Your task to perform on an android device: Open wifi settings Image 0: 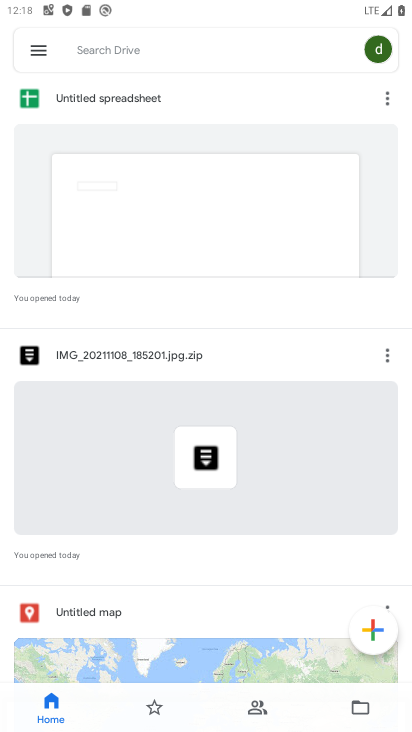
Step 0: press home button
Your task to perform on an android device: Open wifi settings Image 1: 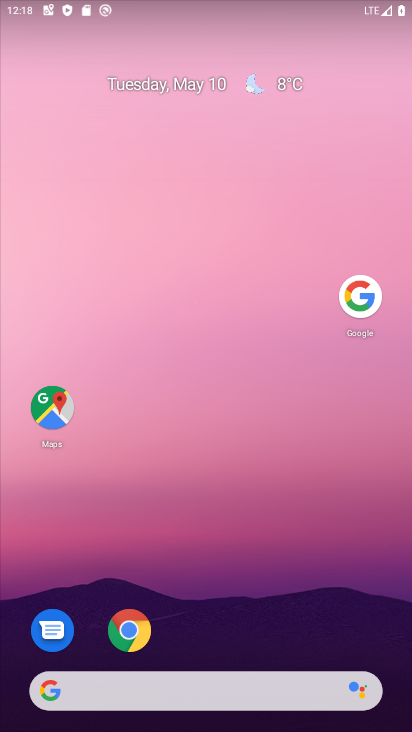
Step 1: drag from (168, 685) to (327, 2)
Your task to perform on an android device: Open wifi settings Image 2: 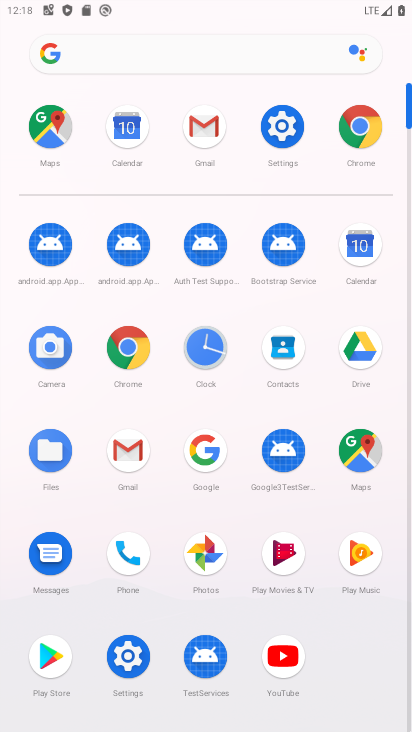
Step 2: click (275, 134)
Your task to perform on an android device: Open wifi settings Image 3: 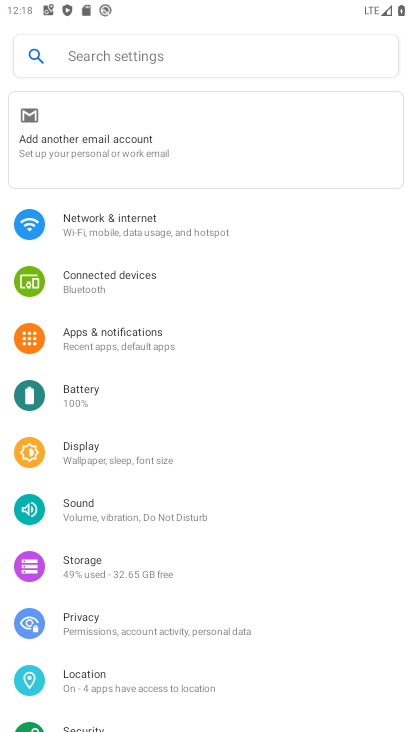
Step 3: click (178, 224)
Your task to perform on an android device: Open wifi settings Image 4: 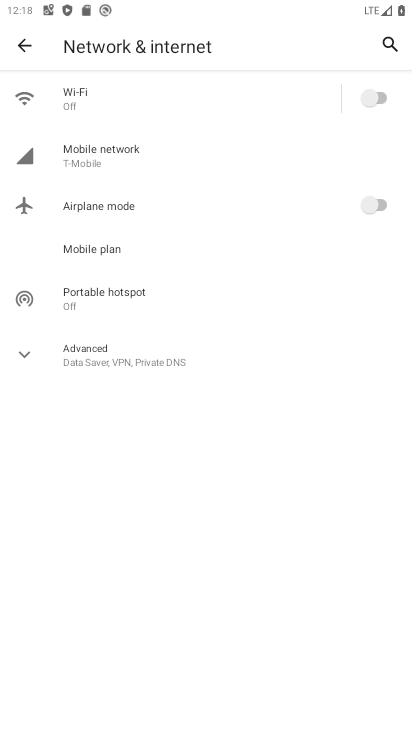
Step 4: click (80, 98)
Your task to perform on an android device: Open wifi settings Image 5: 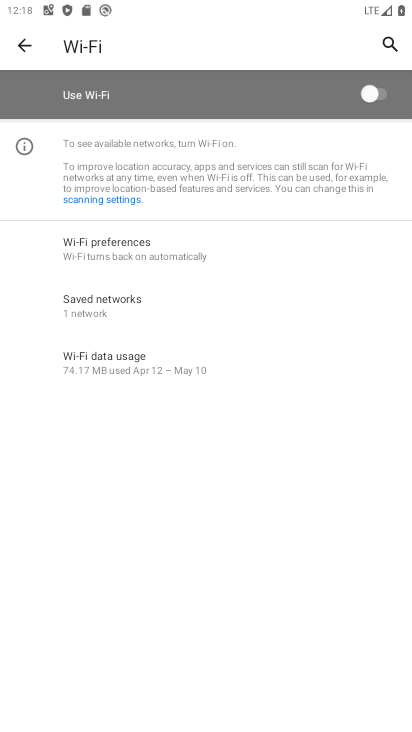
Step 5: task complete